Your task to perform on an android device: Go to Yahoo.com Image 0: 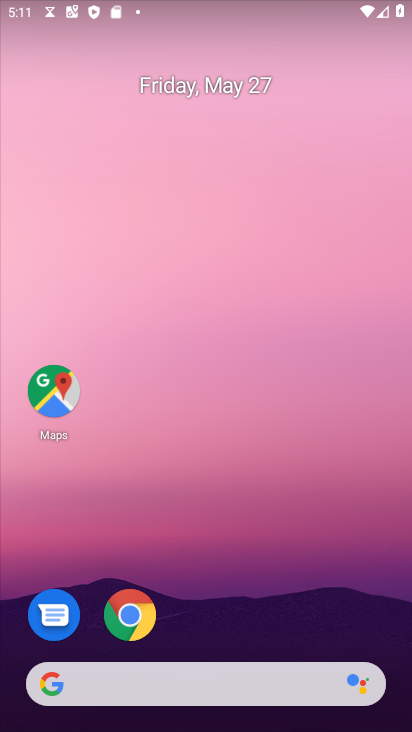
Step 0: click (137, 623)
Your task to perform on an android device: Go to Yahoo.com Image 1: 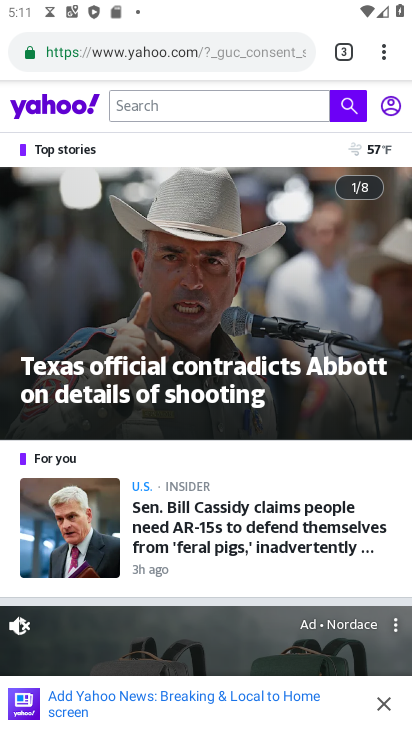
Step 1: task complete